Your task to perform on an android device: toggle sleep mode Image 0: 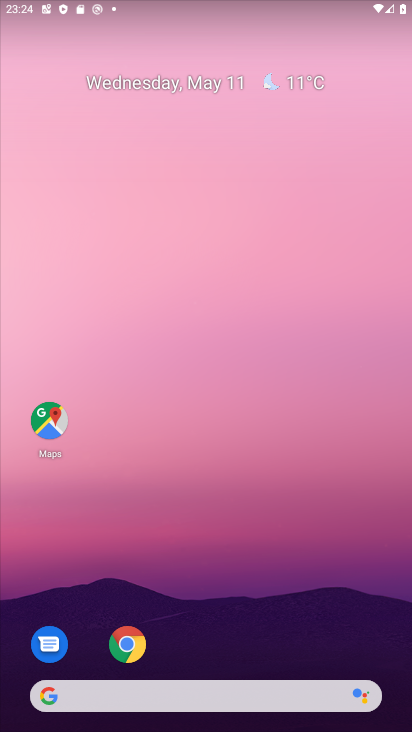
Step 0: press home button
Your task to perform on an android device: toggle sleep mode Image 1: 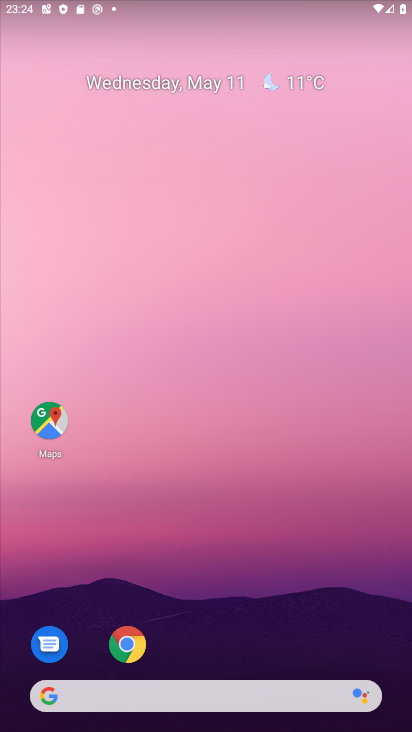
Step 1: drag from (234, 660) to (235, 4)
Your task to perform on an android device: toggle sleep mode Image 2: 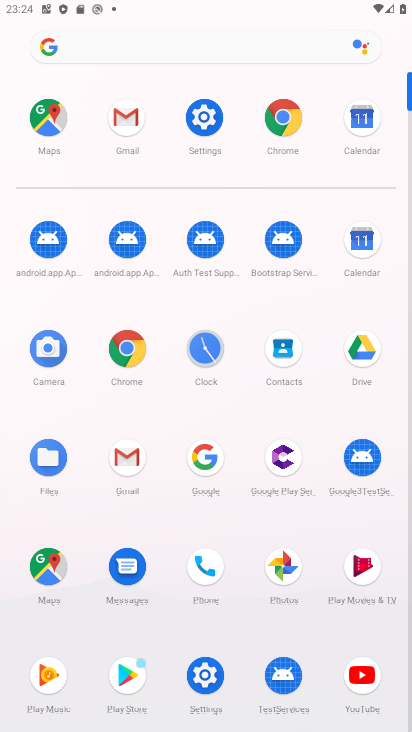
Step 2: click (203, 107)
Your task to perform on an android device: toggle sleep mode Image 3: 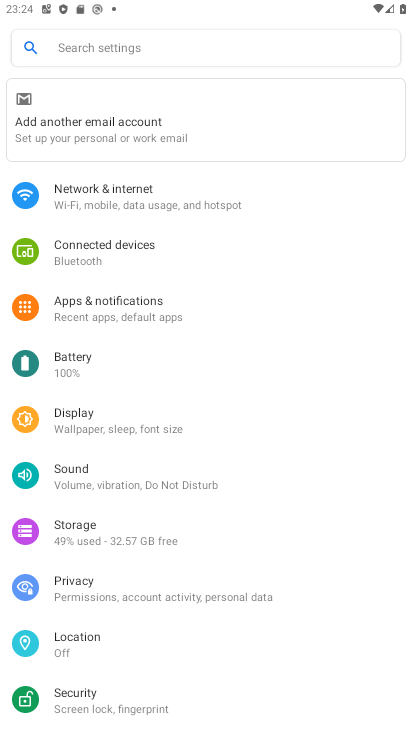
Step 3: click (98, 414)
Your task to perform on an android device: toggle sleep mode Image 4: 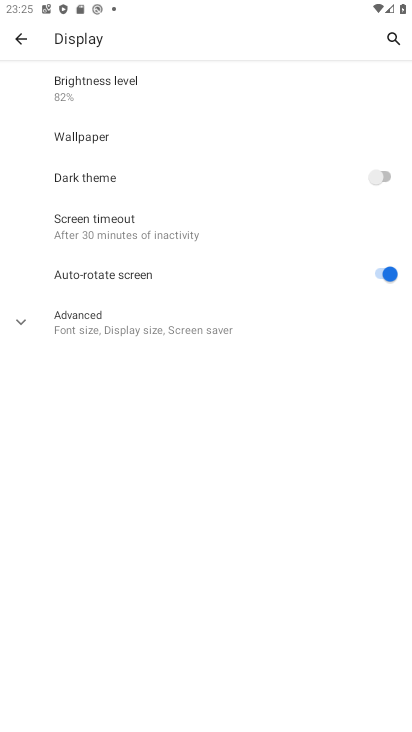
Step 4: click (16, 320)
Your task to perform on an android device: toggle sleep mode Image 5: 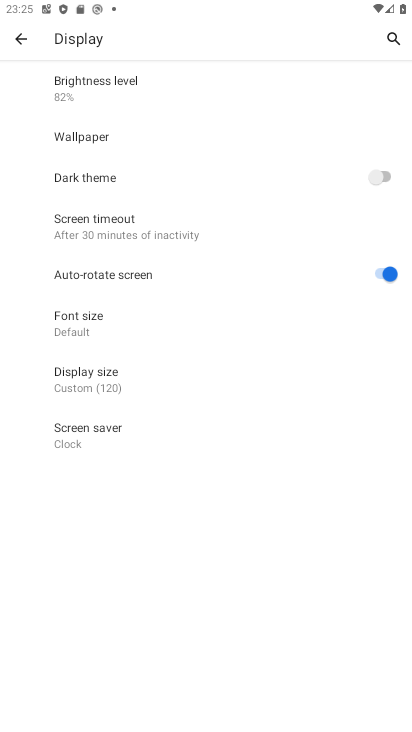
Step 5: task complete